Your task to perform on an android device: open device folders in google photos Image 0: 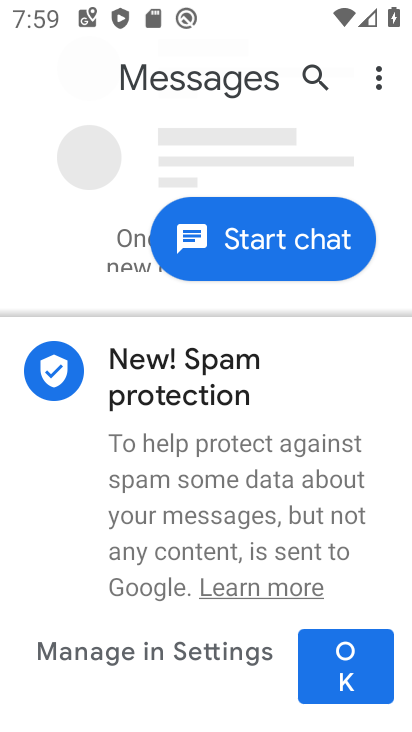
Step 0: press home button
Your task to perform on an android device: open device folders in google photos Image 1: 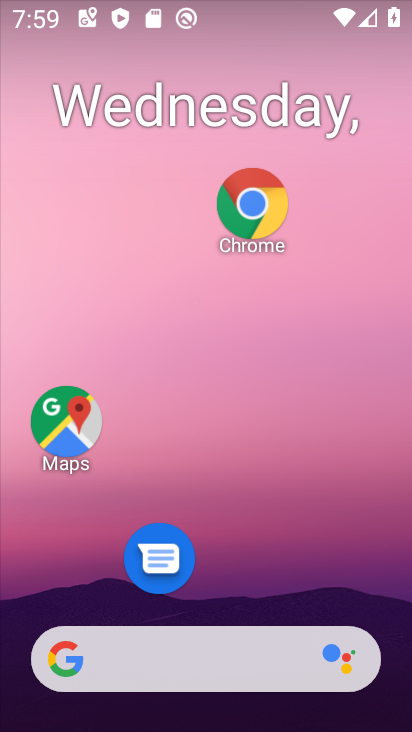
Step 1: drag from (214, 596) to (237, 48)
Your task to perform on an android device: open device folders in google photos Image 2: 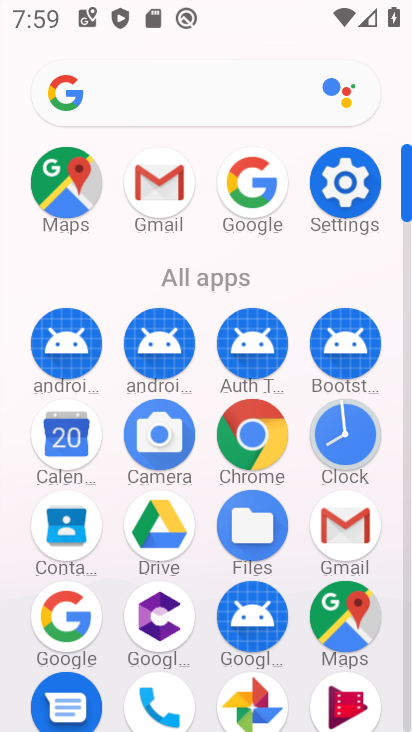
Step 2: click (255, 693)
Your task to perform on an android device: open device folders in google photos Image 3: 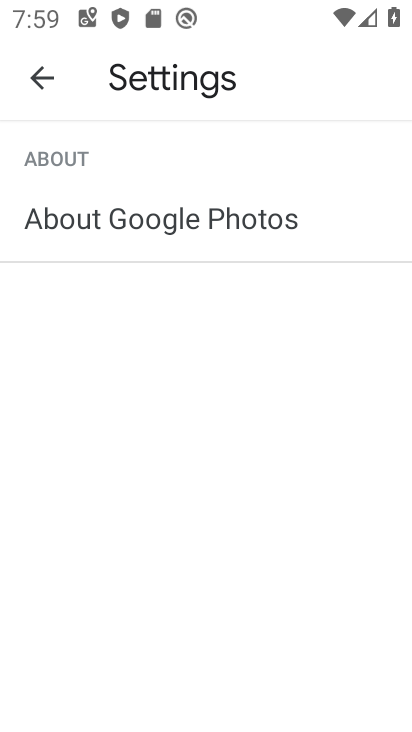
Step 3: click (40, 70)
Your task to perform on an android device: open device folders in google photos Image 4: 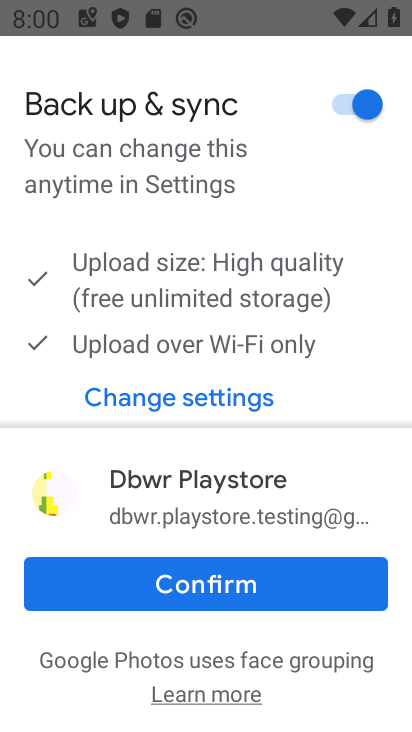
Step 4: click (227, 585)
Your task to perform on an android device: open device folders in google photos Image 5: 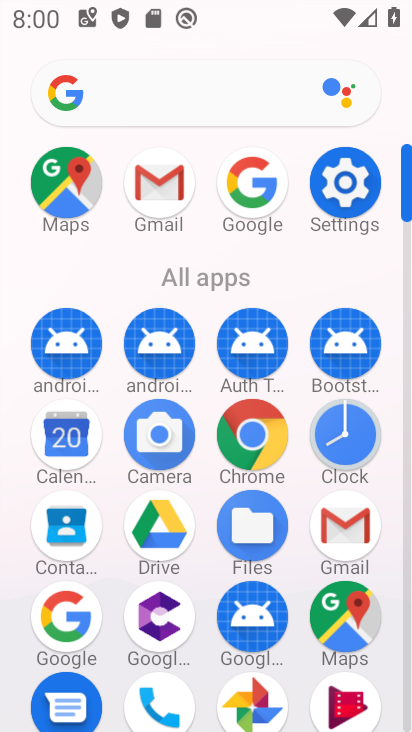
Step 5: click (252, 693)
Your task to perform on an android device: open device folders in google photos Image 6: 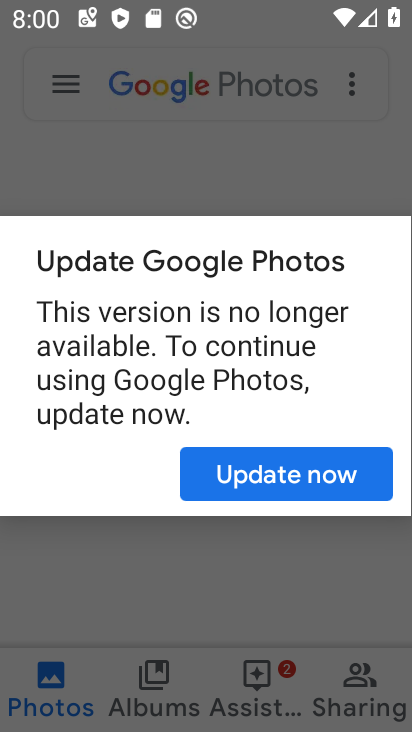
Step 6: click (296, 476)
Your task to perform on an android device: open device folders in google photos Image 7: 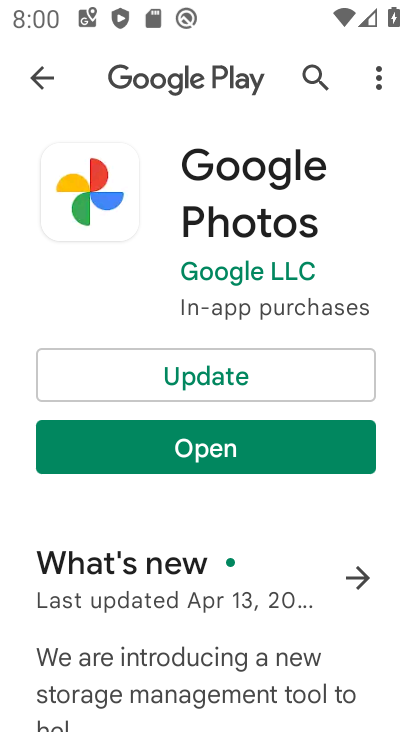
Step 7: click (206, 376)
Your task to perform on an android device: open device folders in google photos Image 8: 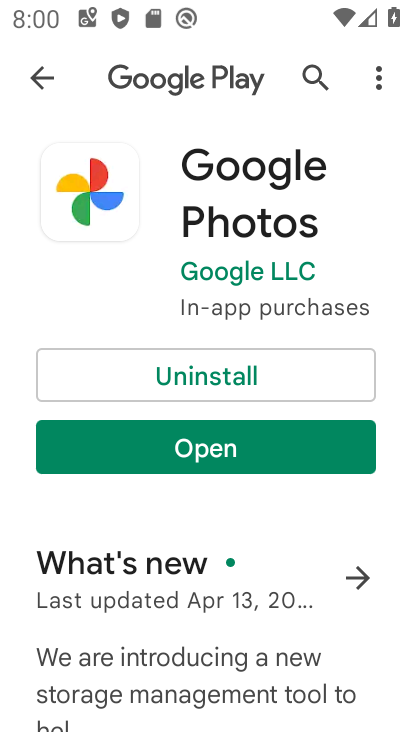
Step 8: click (219, 451)
Your task to perform on an android device: open device folders in google photos Image 9: 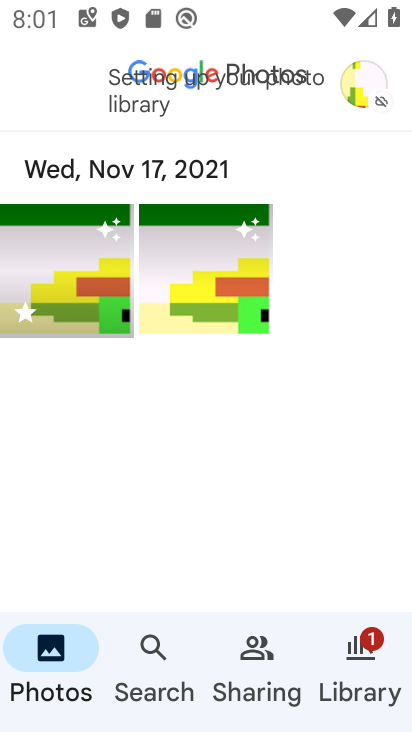
Step 9: click (150, 657)
Your task to perform on an android device: open device folders in google photos Image 10: 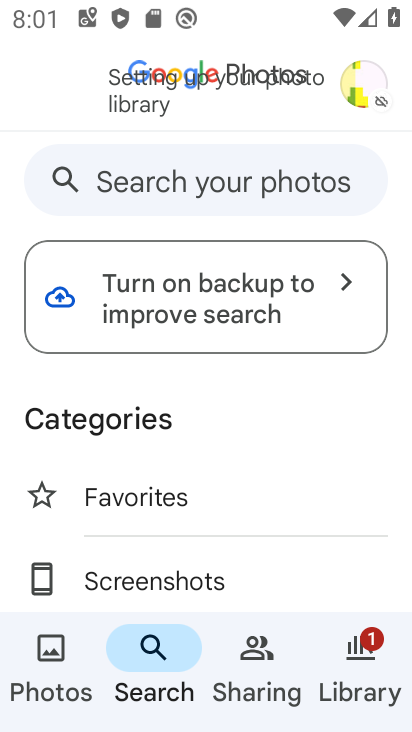
Step 10: click (169, 175)
Your task to perform on an android device: open device folders in google photos Image 11: 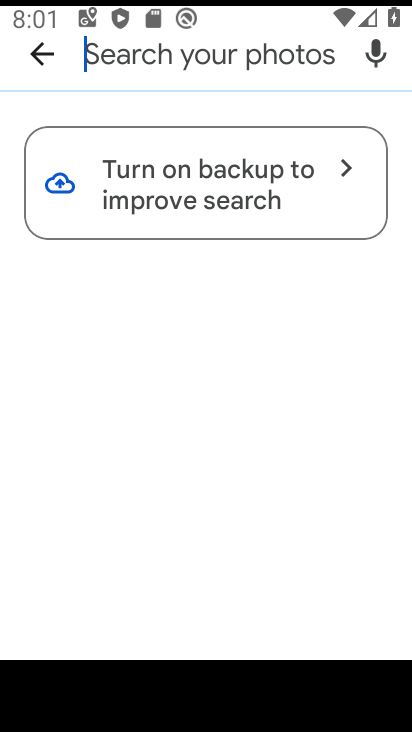
Step 11: type "device folder"
Your task to perform on an android device: open device folders in google photos Image 12: 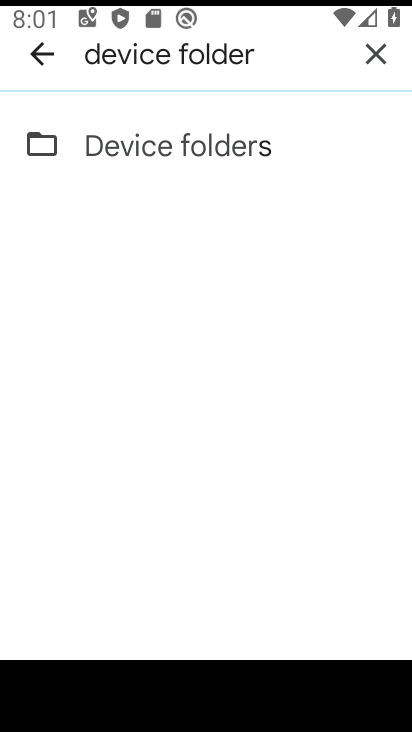
Step 12: click (200, 153)
Your task to perform on an android device: open device folders in google photos Image 13: 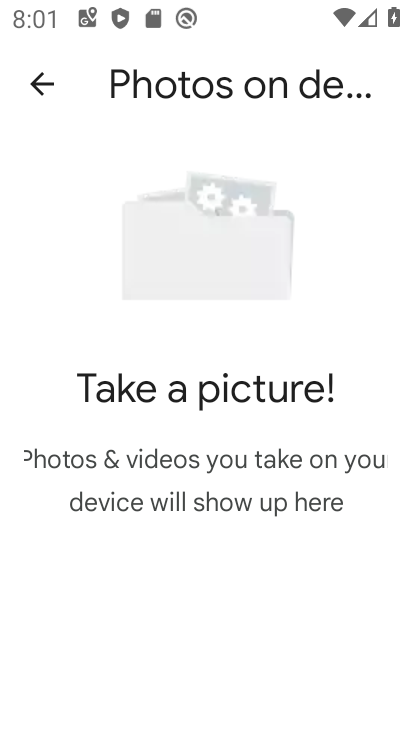
Step 13: task complete